Your task to perform on an android device: Search for a small bookcase on Ikea.com Image 0: 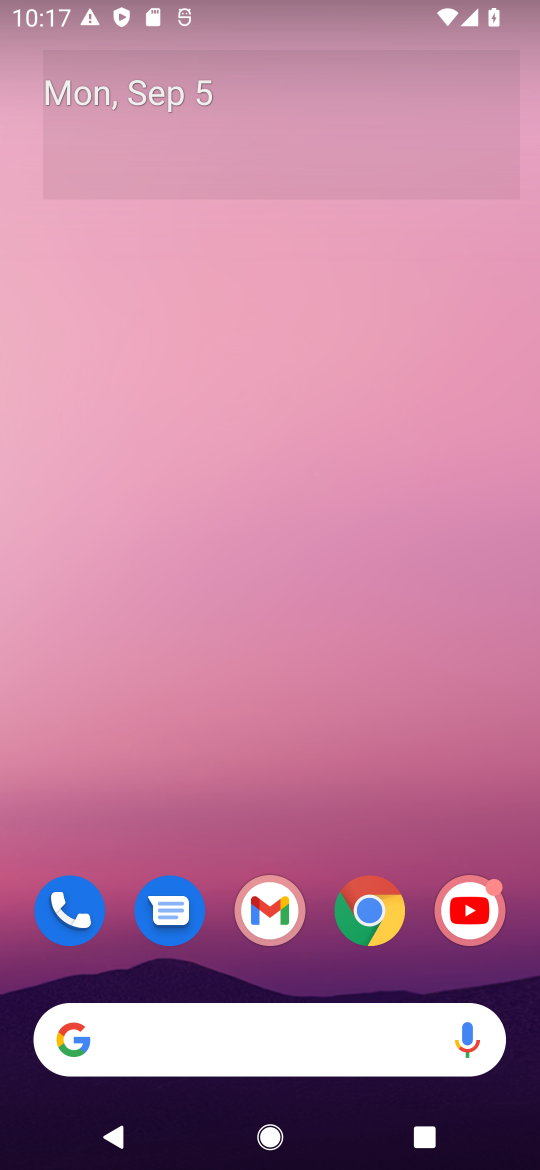
Step 0: click (344, 929)
Your task to perform on an android device: Search for a small bookcase on Ikea.com Image 1: 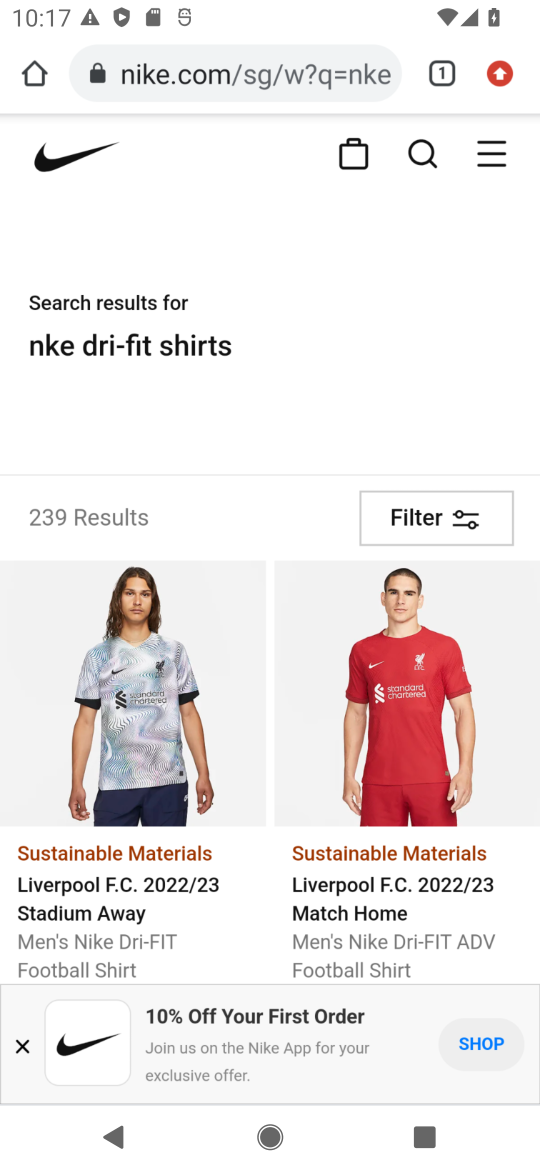
Step 1: click (333, 92)
Your task to perform on an android device: Search for a small bookcase on Ikea.com Image 2: 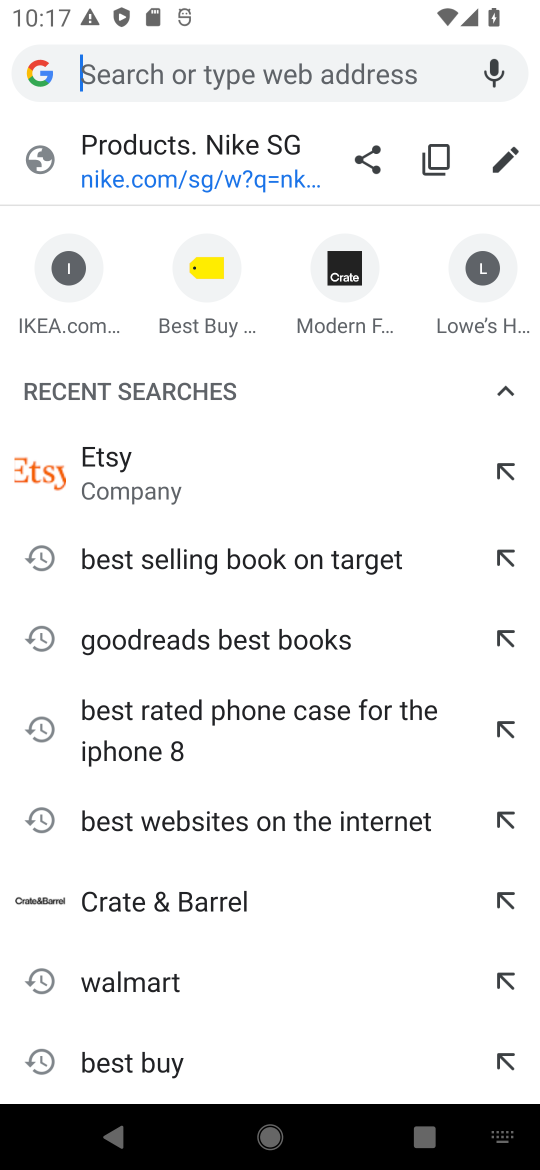
Step 2: type "ikea.com"
Your task to perform on an android device: Search for a small bookcase on Ikea.com Image 3: 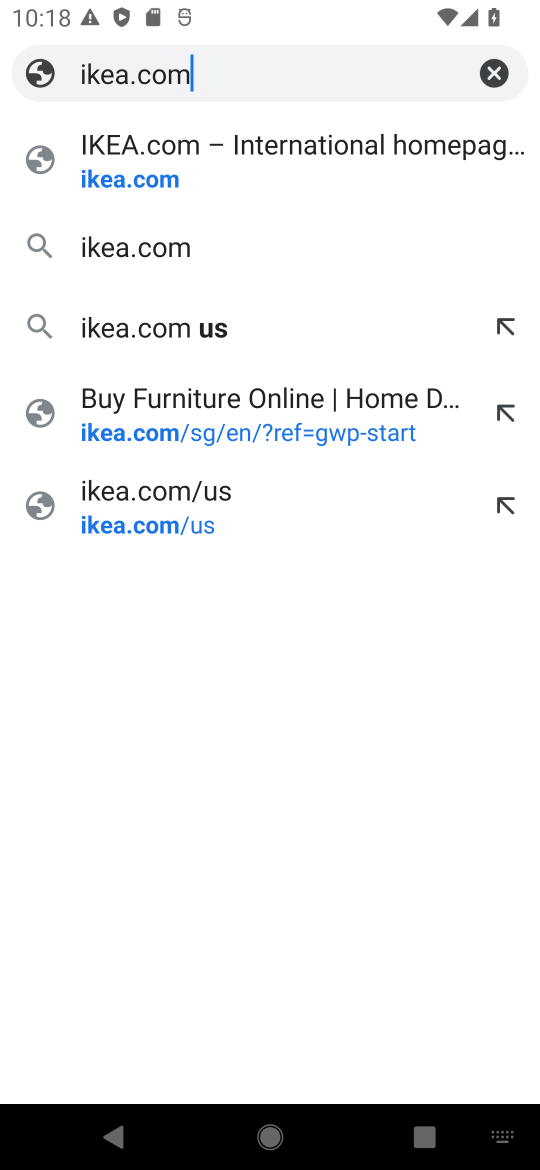
Step 3: click (276, 153)
Your task to perform on an android device: Search for a small bookcase on Ikea.com Image 4: 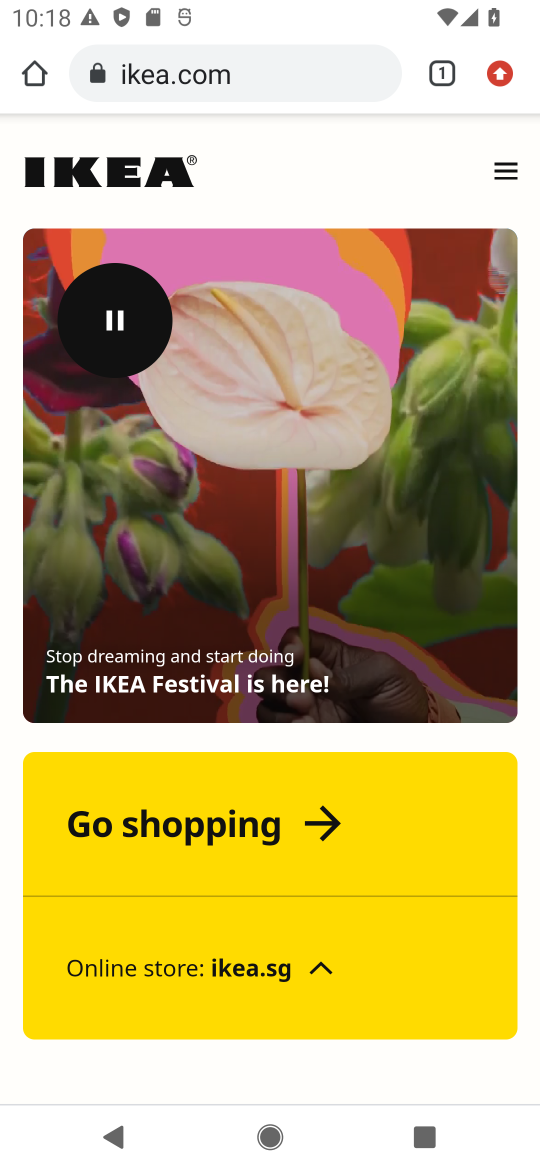
Step 4: click (306, 816)
Your task to perform on an android device: Search for a small bookcase on Ikea.com Image 5: 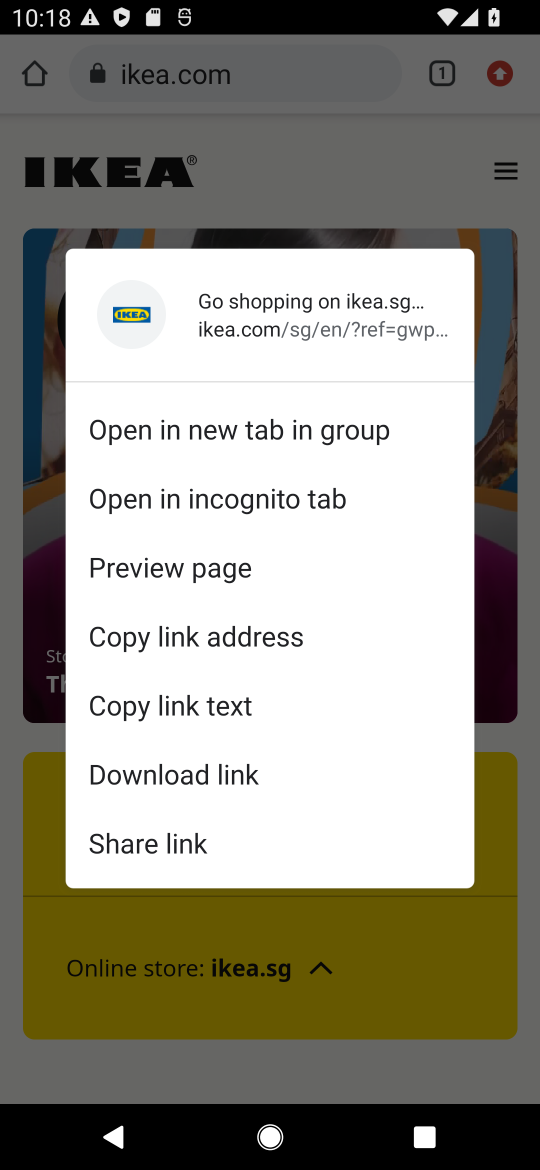
Step 5: click (354, 220)
Your task to perform on an android device: Search for a small bookcase on Ikea.com Image 6: 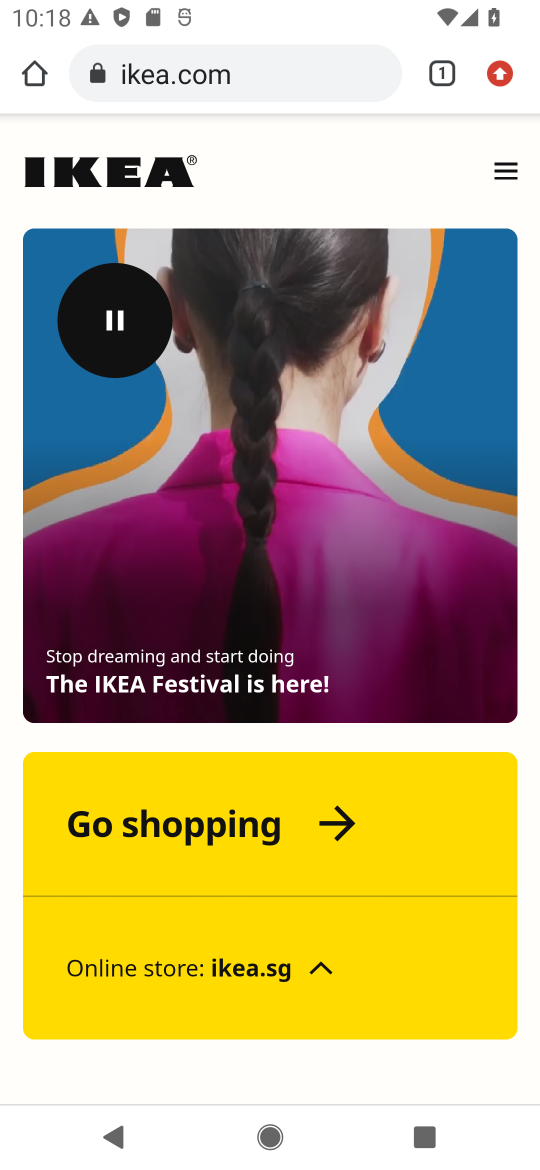
Step 6: click (339, 821)
Your task to perform on an android device: Search for a small bookcase on Ikea.com Image 7: 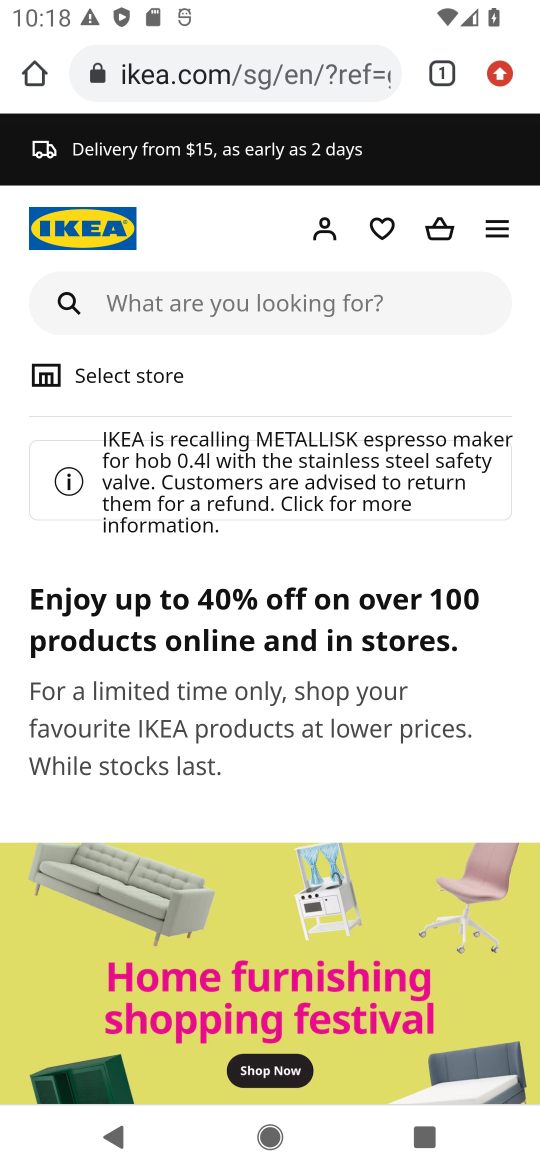
Step 7: click (396, 311)
Your task to perform on an android device: Search for a small bookcase on Ikea.com Image 8: 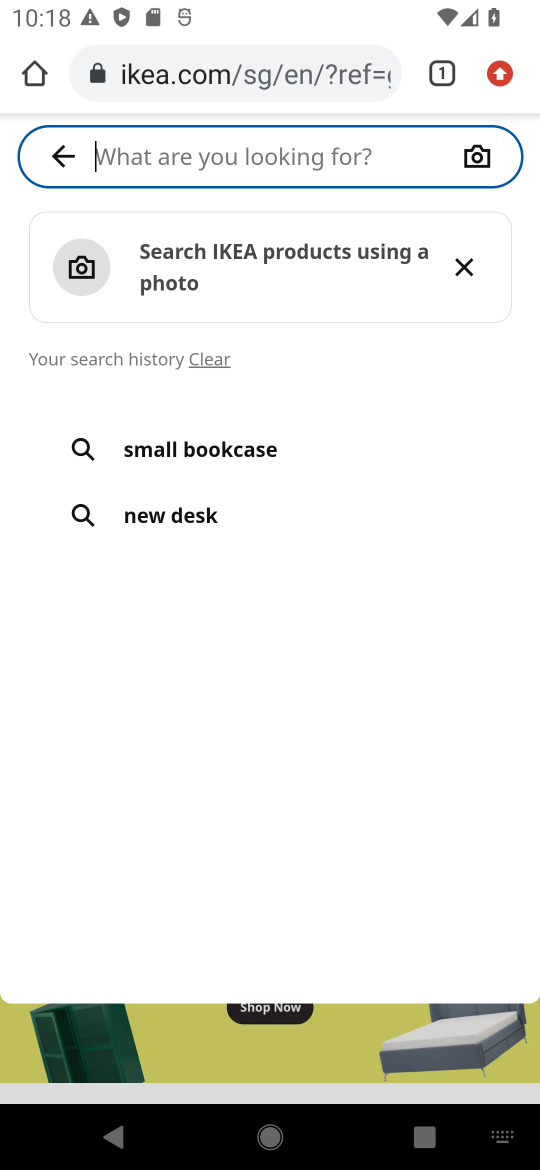
Step 8: type "samll bookcase"
Your task to perform on an android device: Search for a small bookcase on Ikea.com Image 9: 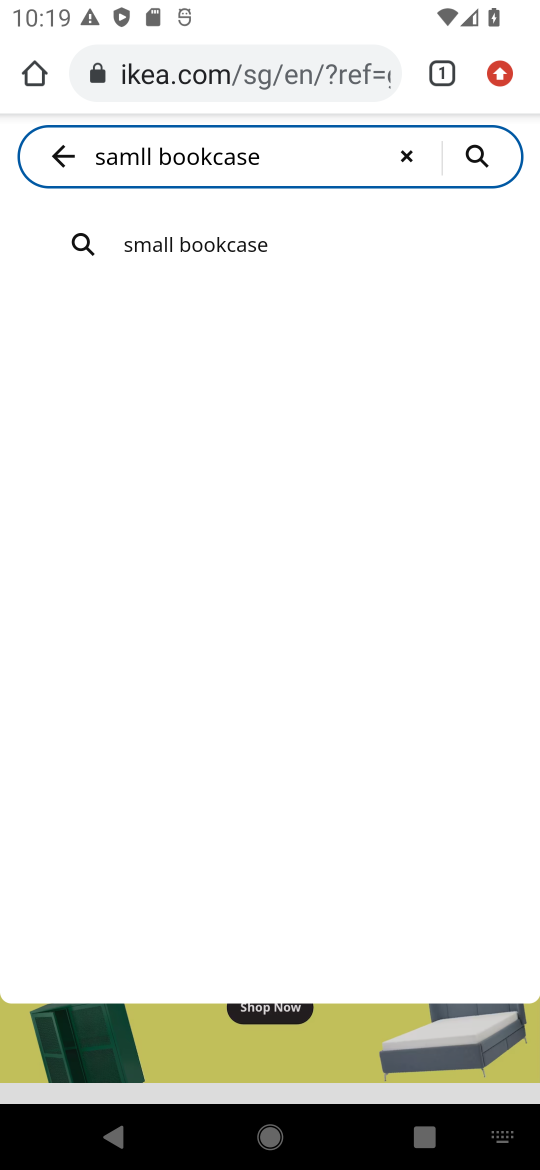
Step 9: click (281, 259)
Your task to perform on an android device: Search for a small bookcase on Ikea.com Image 10: 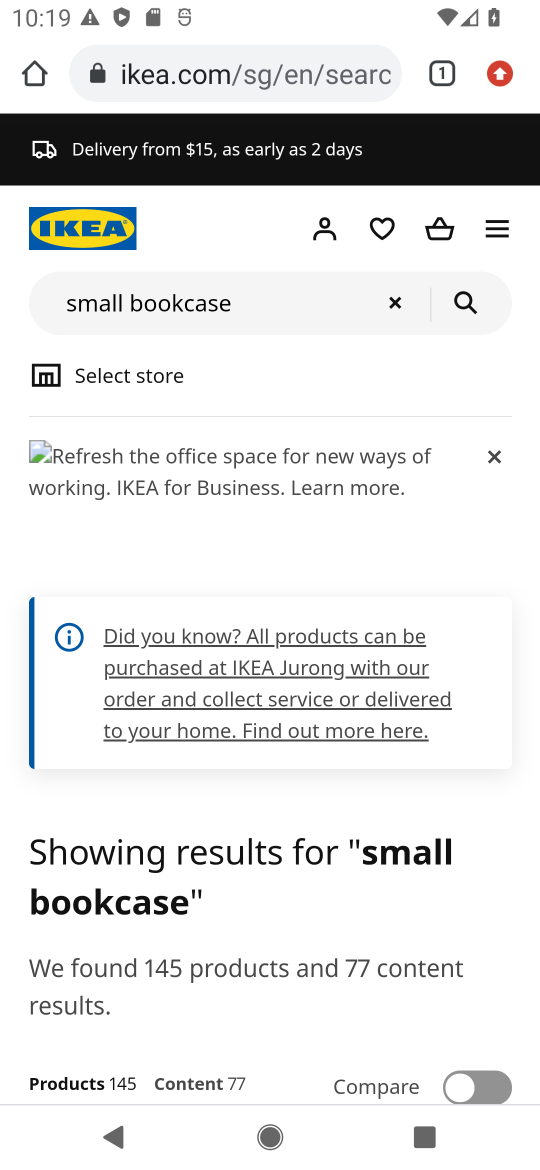
Step 10: task complete